Your task to perform on an android device: uninstall "Reddit" Image 0: 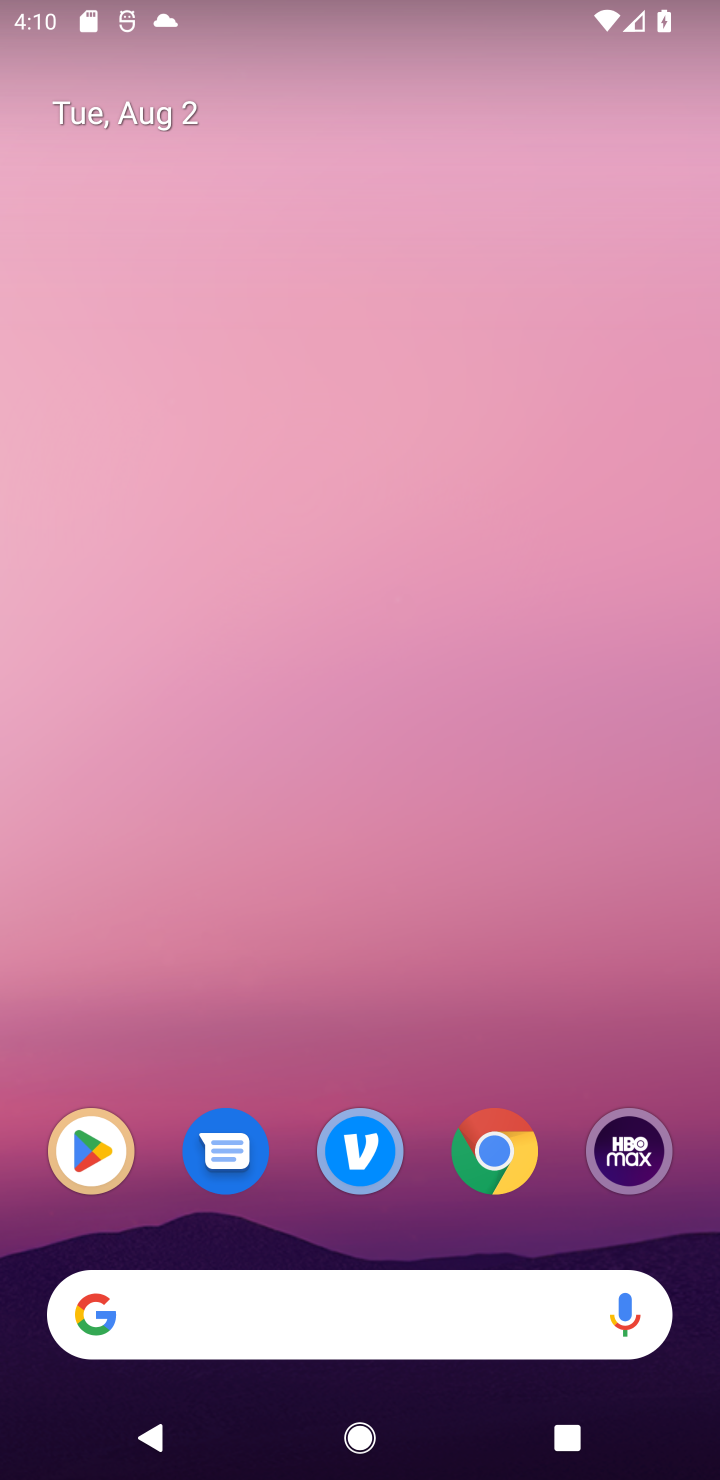
Step 0: drag from (432, 1218) to (574, 192)
Your task to perform on an android device: uninstall "Reddit" Image 1: 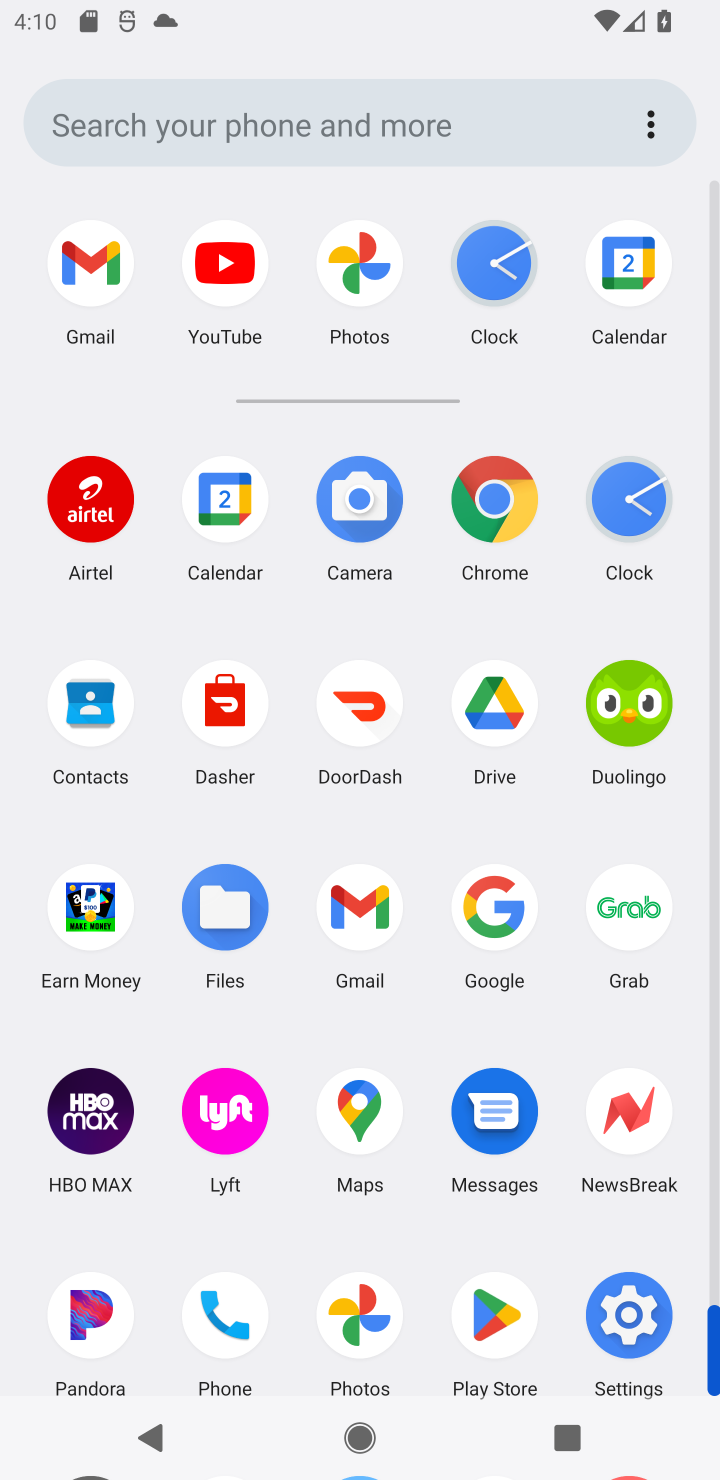
Step 1: drag from (399, 998) to (455, 282)
Your task to perform on an android device: uninstall "Reddit" Image 2: 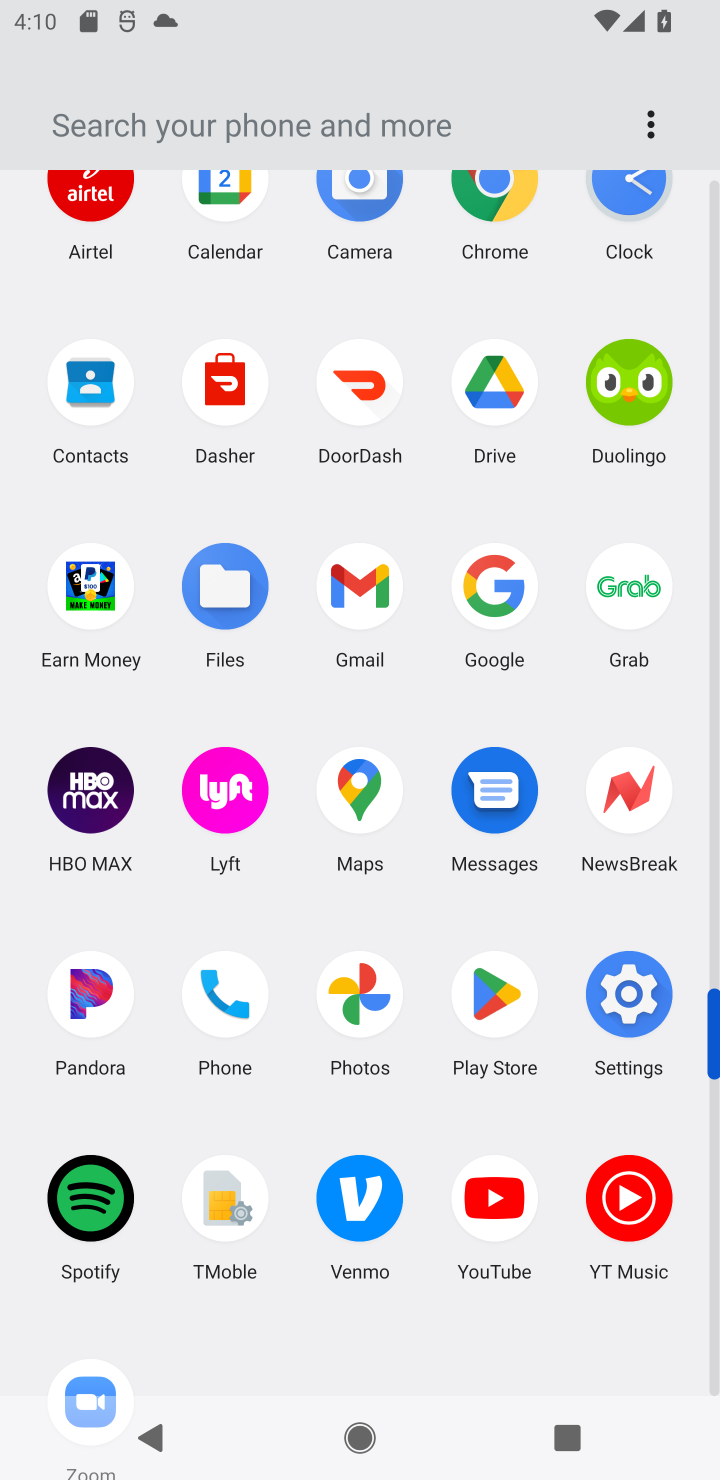
Step 2: click (494, 1020)
Your task to perform on an android device: uninstall "Reddit" Image 3: 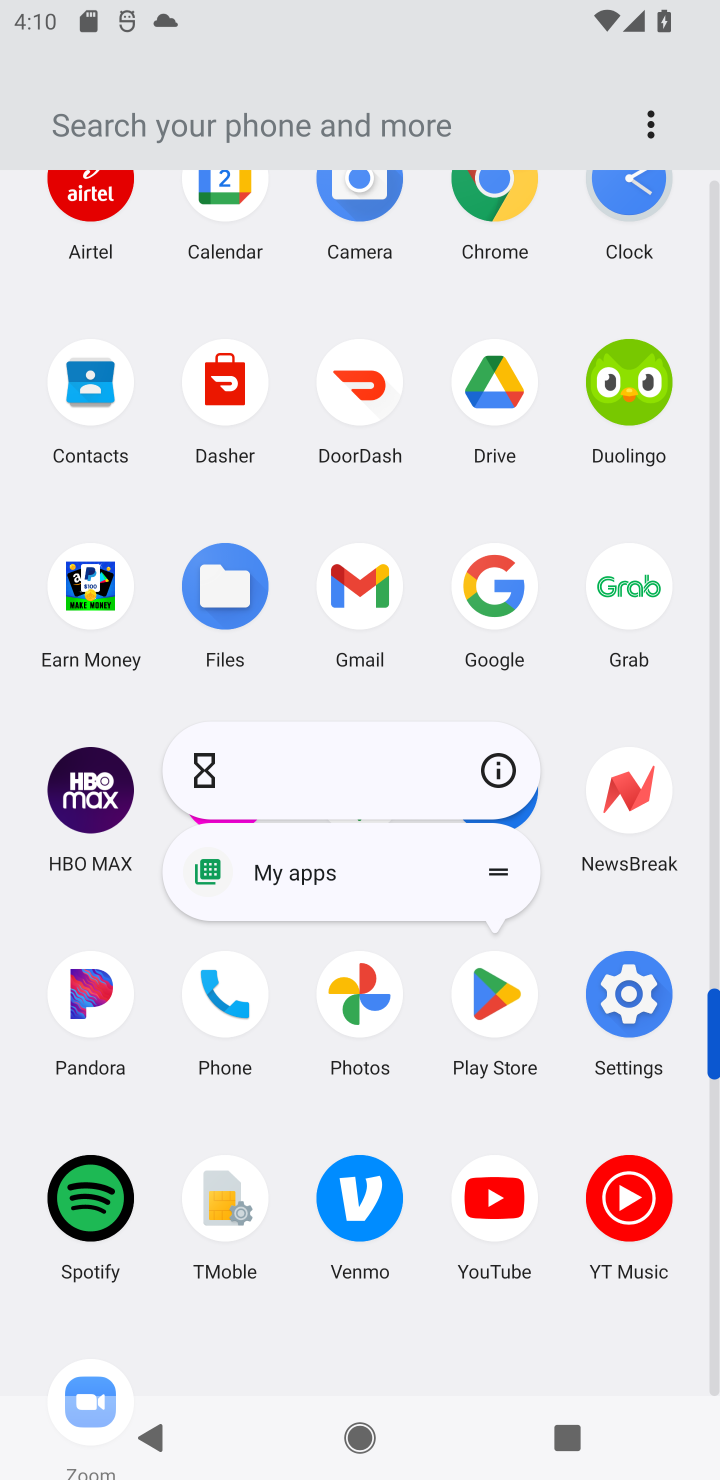
Step 3: click (494, 1020)
Your task to perform on an android device: uninstall "Reddit" Image 4: 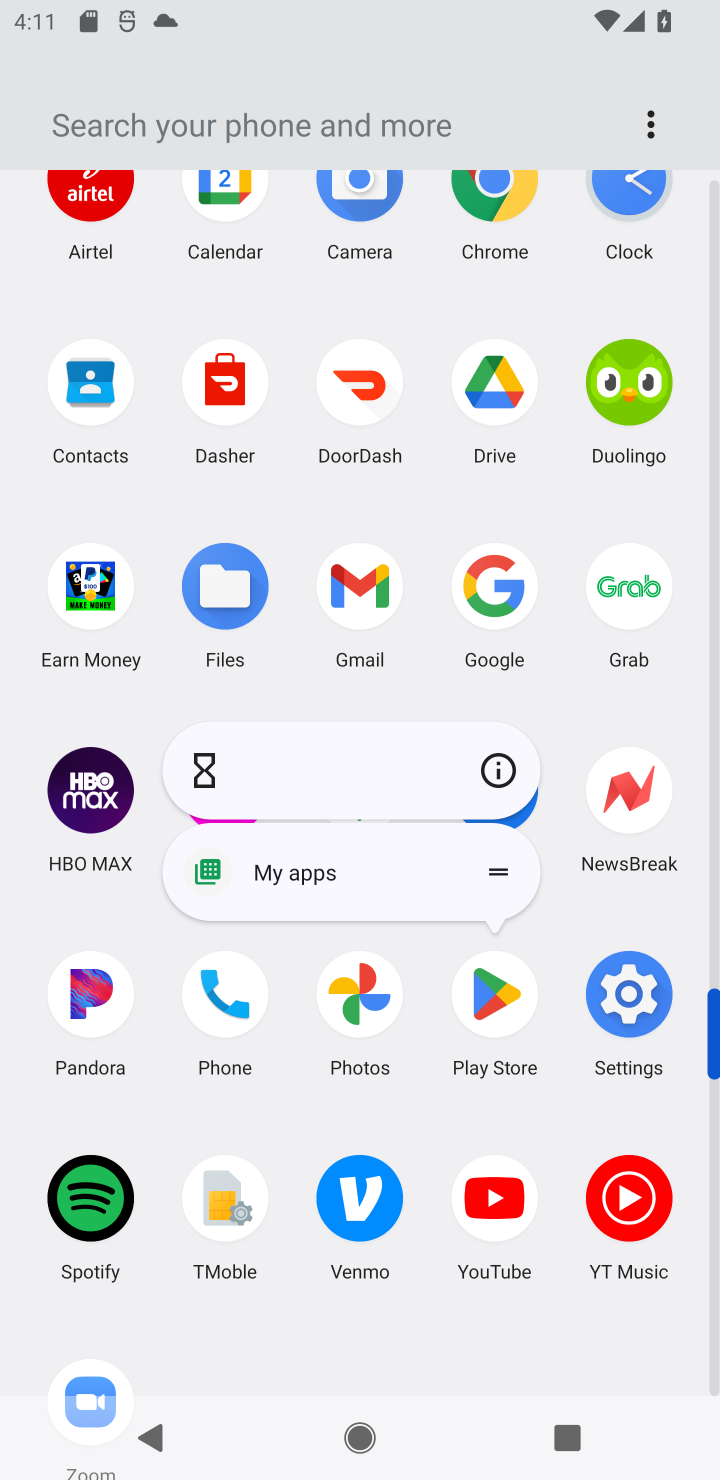
Step 4: click (503, 1036)
Your task to perform on an android device: uninstall "Reddit" Image 5: 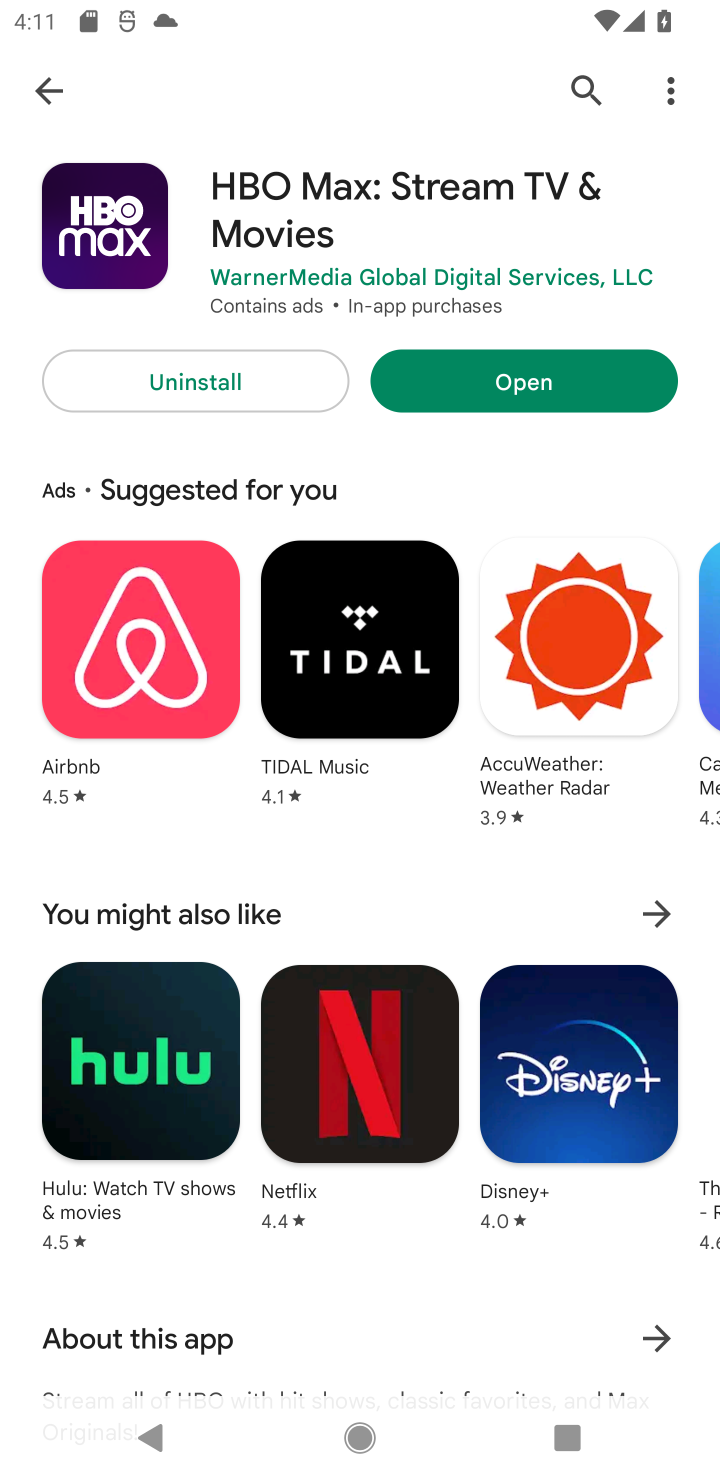
Step 5: click (51, 102)
Your task to perform on an android device: uninstall "Reddit" Image 6: 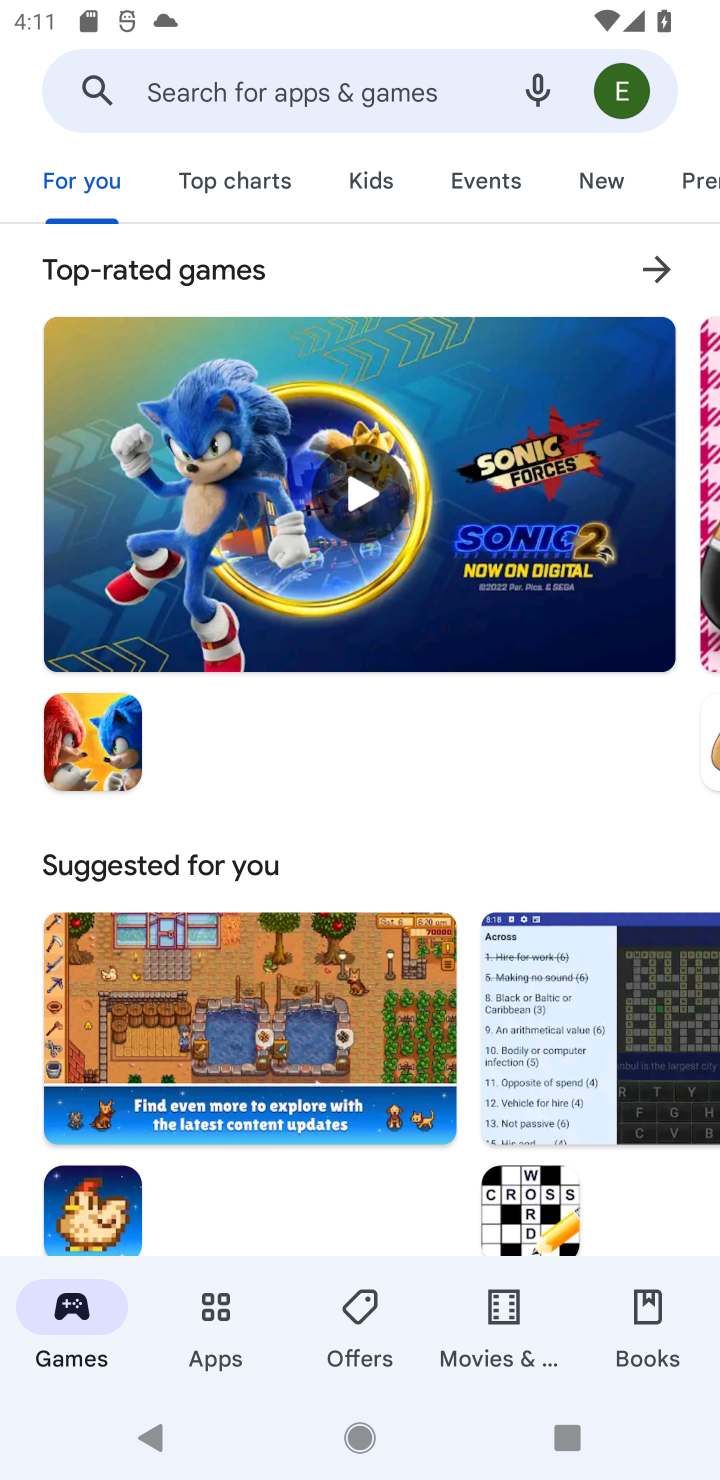
Step 6: click (228, 96)
Your task to perform on an android device: uninstall "Reddit" Image 7: 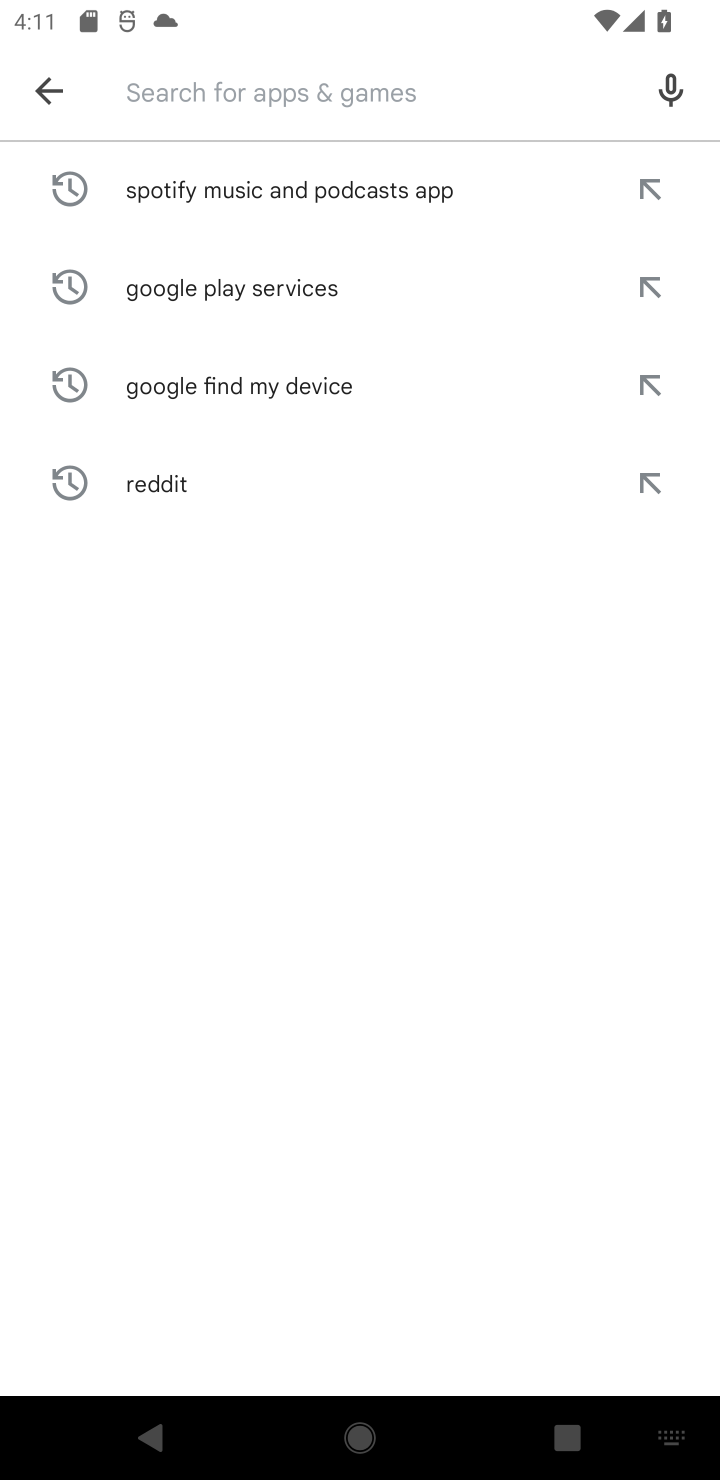
Step 7: type "Reddit"
Your task to perform on an android device: uninstall "Reddit" Image 8: 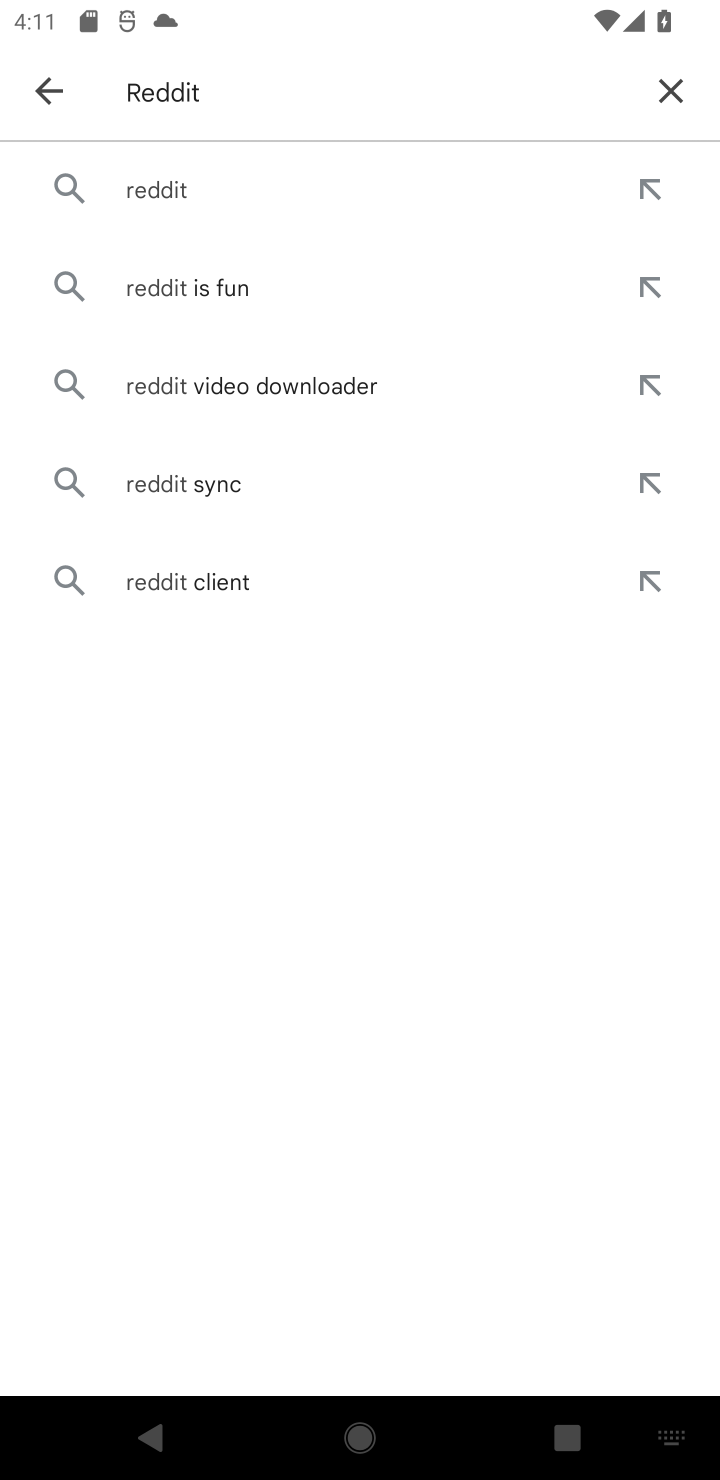
Step 8: click (206, 171)
Your task to perform on an android device: uninstall "Reddit" Image 9: 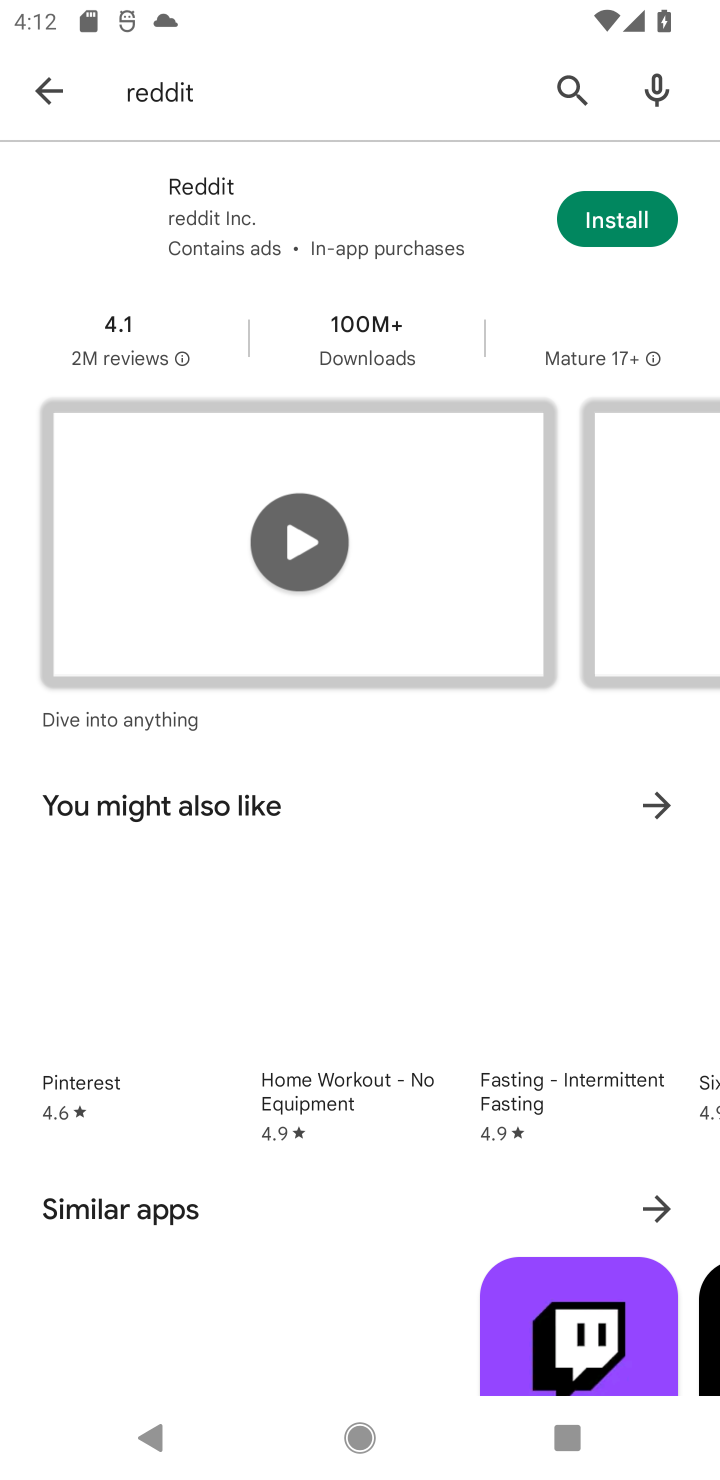
Step 9: task complete